Your task to perform on an android device: turn on the 12-hour format for clock Image 0: 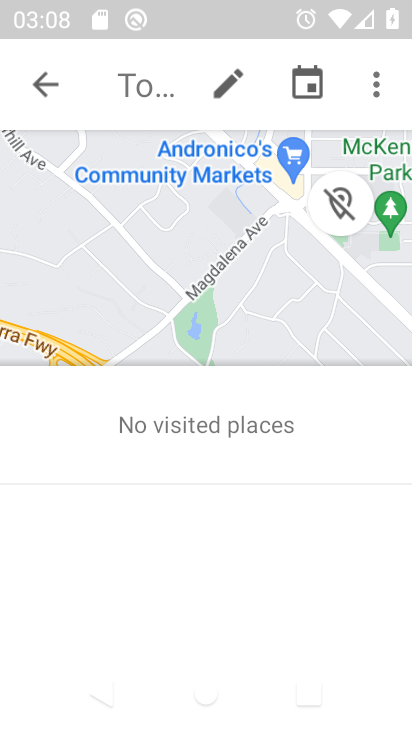
Step 0: press home button
Your task to perform on an android device: turn on the 12-hour format for clock Image 1: 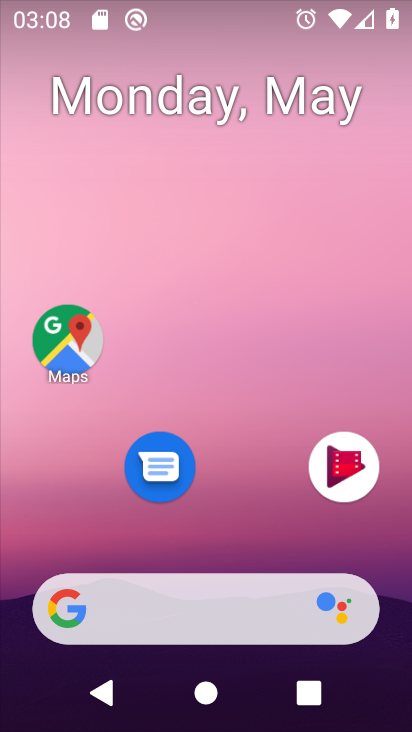
Step 1: drag from (241, 436) to (243, 158)
Your task to perform on an android device: turn on the 12-hour format for clock Image 2: 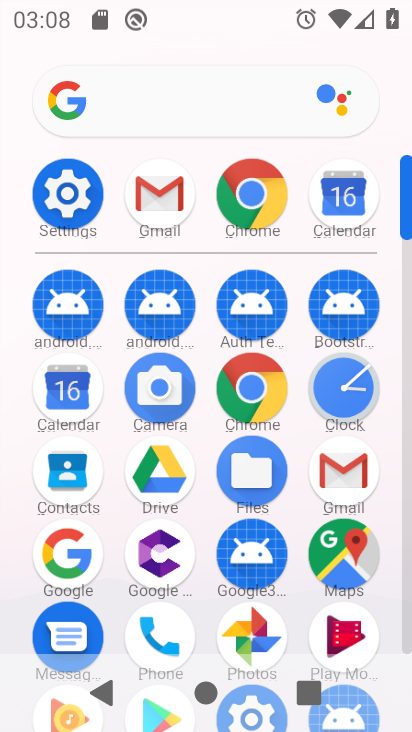
Step 2: click (341, 385)
Your task to perform on an android device: turn on the 12-hour format for clock Image 3: 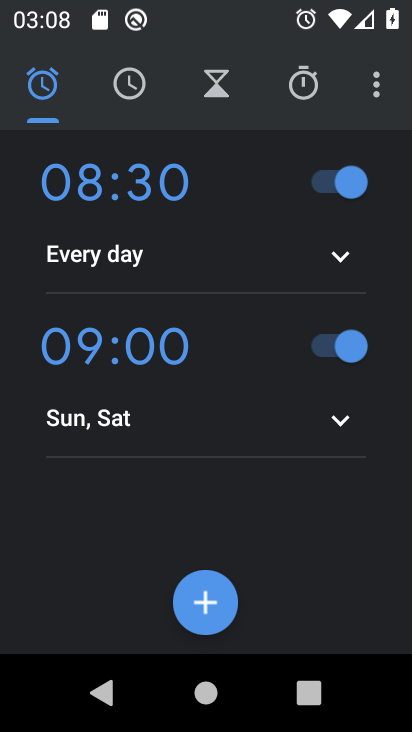
Step 3: click (363, 74)
Your task to perform on an android device: turn on the 12-hour format for clock Image 4: 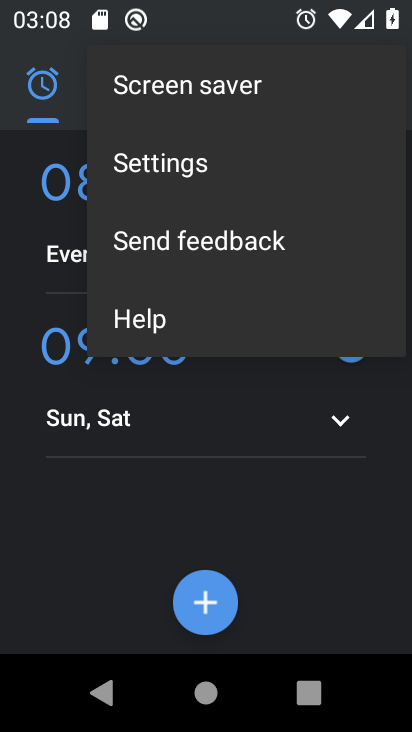
Step 4: click (203, 147)
Your task to perform on an android device: turn on the 12-hour format for clock Image 5: 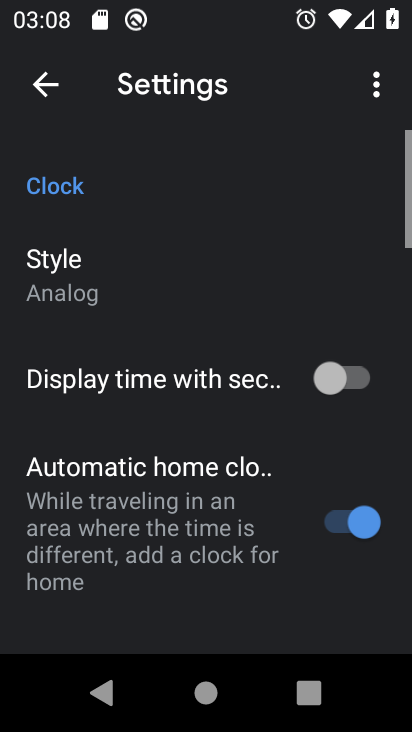
Step 5: drag from (275, 442) to (320, 117)
Your task to perform on an android device: turn on the 12-hour format for clock Image 6: 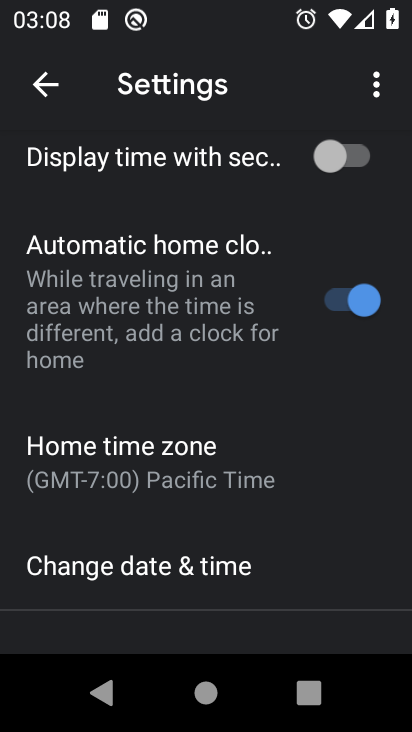
Step 6: click (165, 579)
Your task to perform on an android device: turn on the 12-hour format for clock Image 7: 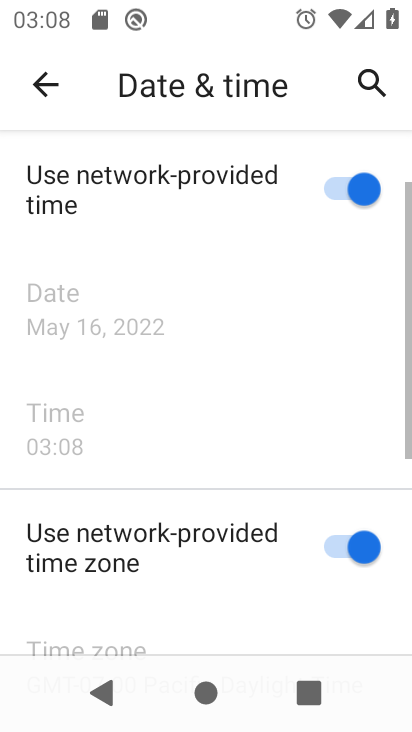
Step 7: task complete